Your task to perform on an android device: remove spam from my inbox in the gmail app Image 0: 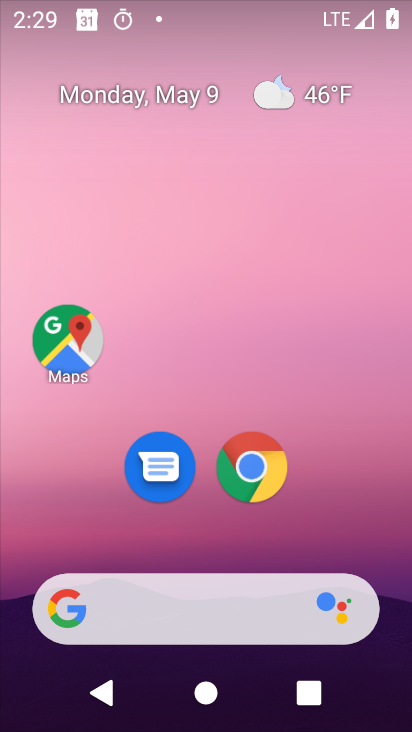
Step 0: drag from (316, 469) to (316, 86)
Your task to perform on an android device: remove spam from my inbox in the gmail app Image 1: 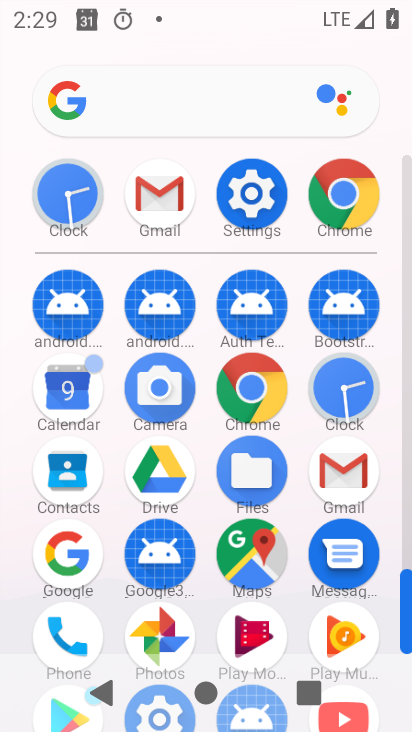
Step 1: click (175, 184)
Your task to perform on an android device: remove spam from my inbox in the gmail app Image 2: 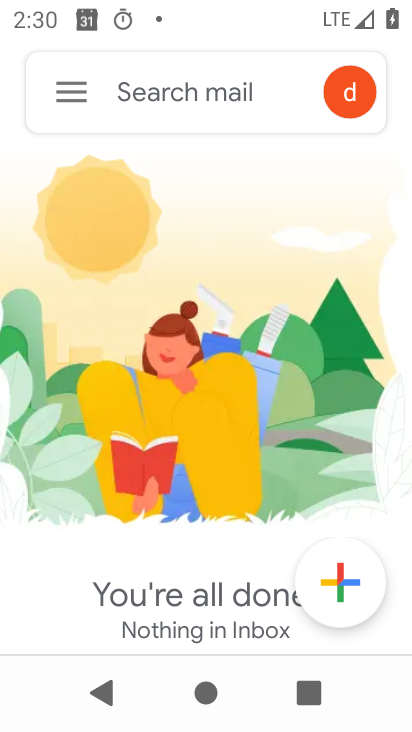
Step 2: click (76, 79)
Your task to perform on an android device: remove spam from my inbox in the gmail app Image 3: 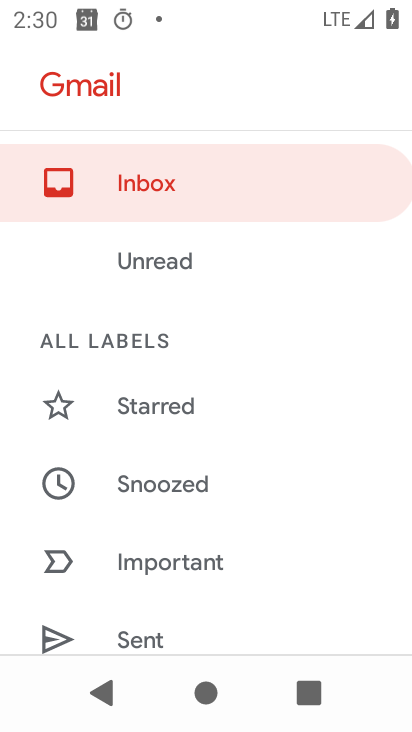
Step 3: drag from (228, 560) to (318, 166)
Your task to perform on an android device: remove spam from my inbox in the gmail app Image 4: 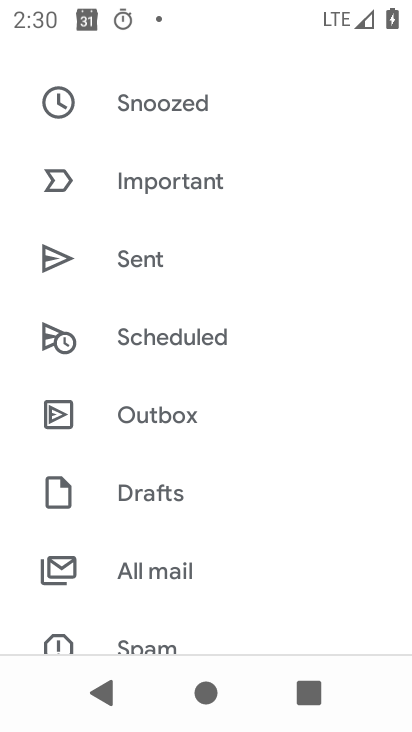
Step 4: drag from (208, 535) to (281, 236)
Your task to perform on an android device: remove spam from my inbox in the gmail app Image 5: 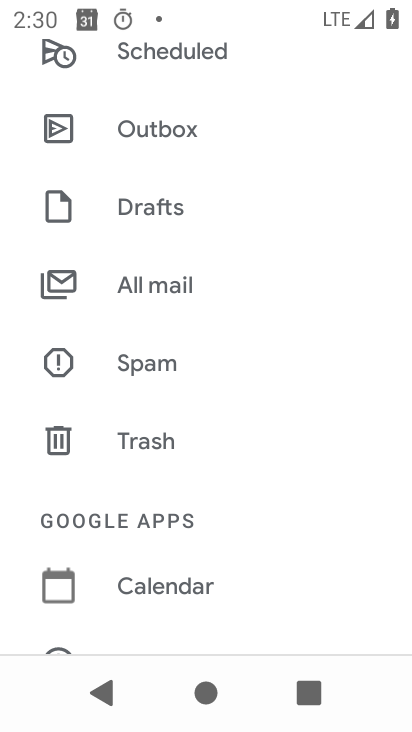
Step 5: click (152, 377)
Your task to perform on an android device: remove spam from my inbox in the gmail app Image 6: 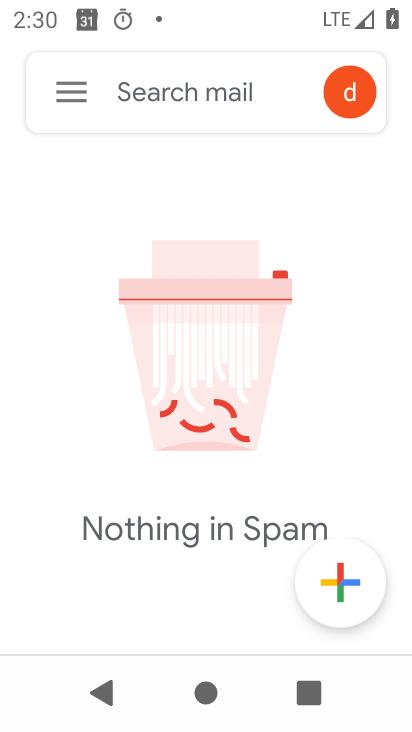
Step 6: task complete